Your task to perform on an android device: Open Android settings Image 0: 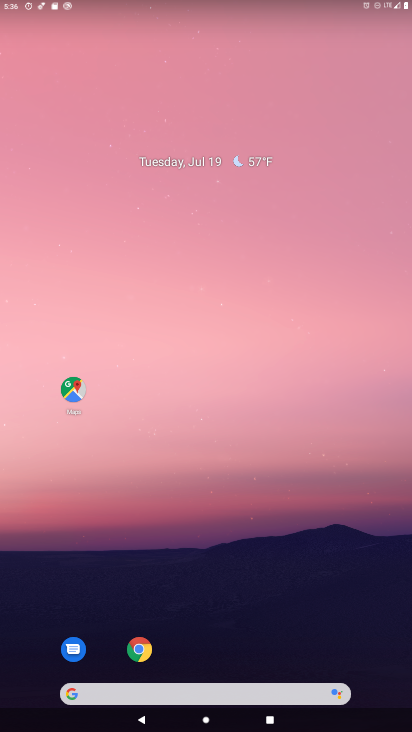
Step 0: press home button
Your task to perform on an android device: Open Android settings Image 1: 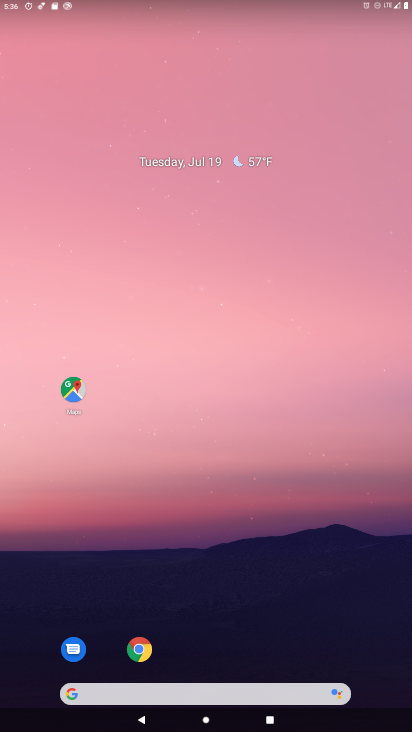
Step 1: drag from (171, 618) to (25, 118)
Your task to perform on an android device: Open Android settings Image 2: 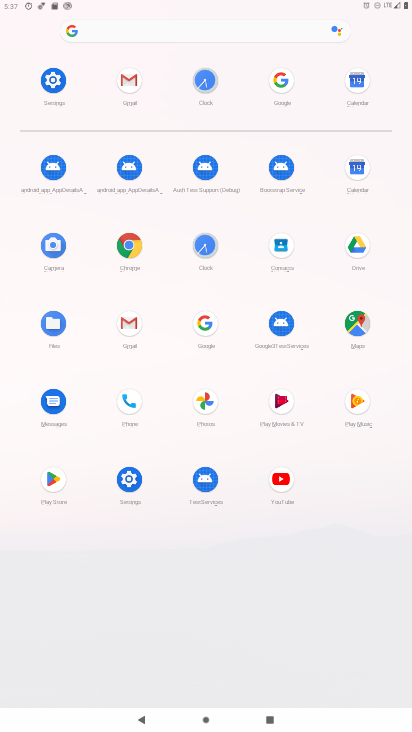
Step 2: click (129, 497)
Your task to perform on an android device: Open Android settings Image 3: 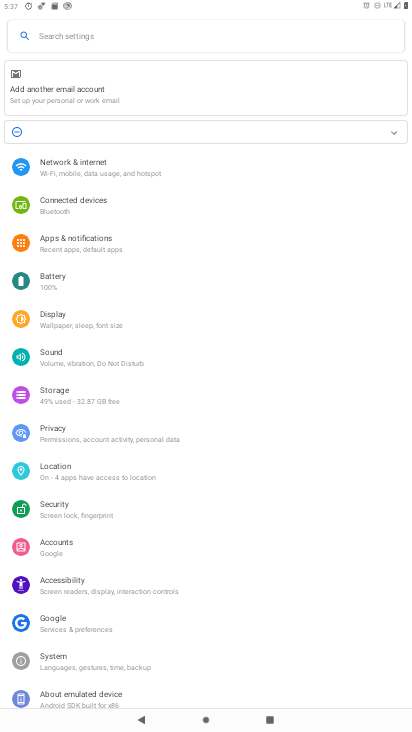
Step 3: click (64, 701)
Your task to perform on an android device: Open Android settings Image 4: 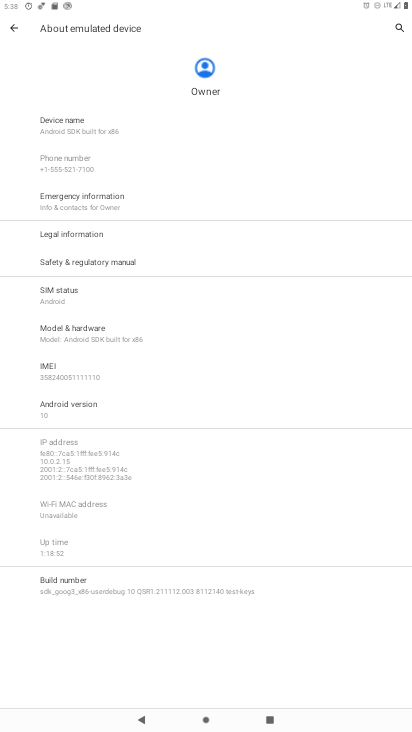
Step 4: click (69, 419)
Your task to perform on an android device: Open Android settings Image 5: 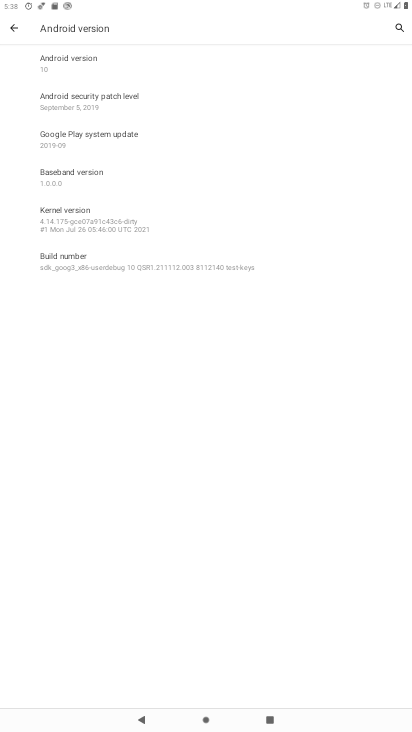
Step 5: task complete